Your task to perform on an android device: allow cookies in the chrome app Image 0: 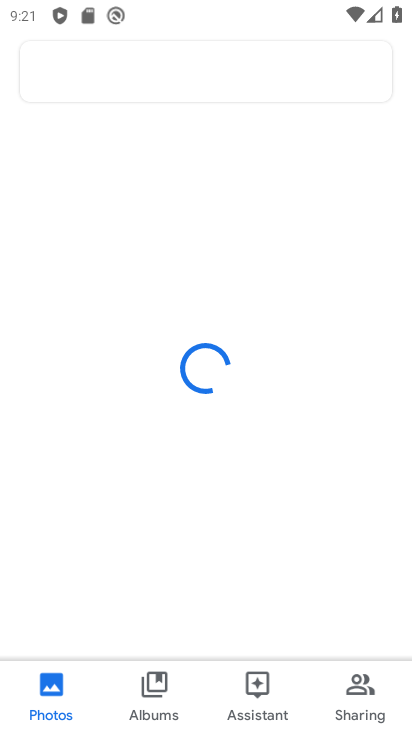
Step 0: press home button
Your task to perform on an android device: allow cookies in the chrome app Image 1: 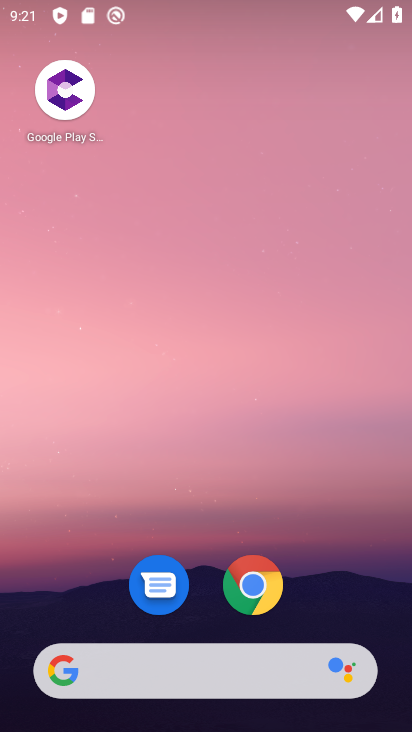
Step 1: click (409, 514)
Your task to perform on an android device: allow cookies in the chrome app Image 2: 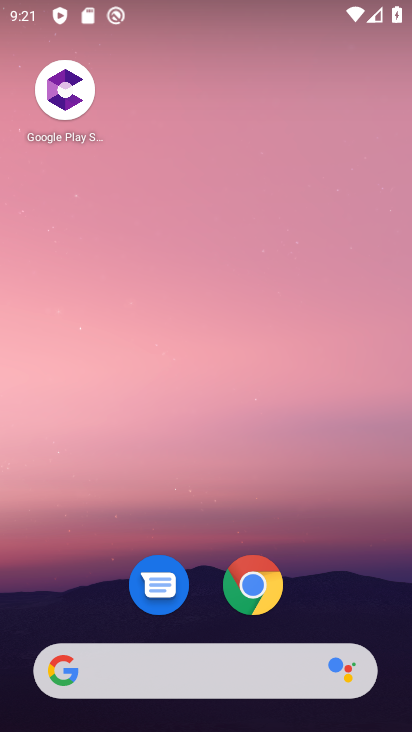
Step 2: click (260, 584)
Your task to perform on an android device: allow cookies in the chrome app Image 3: 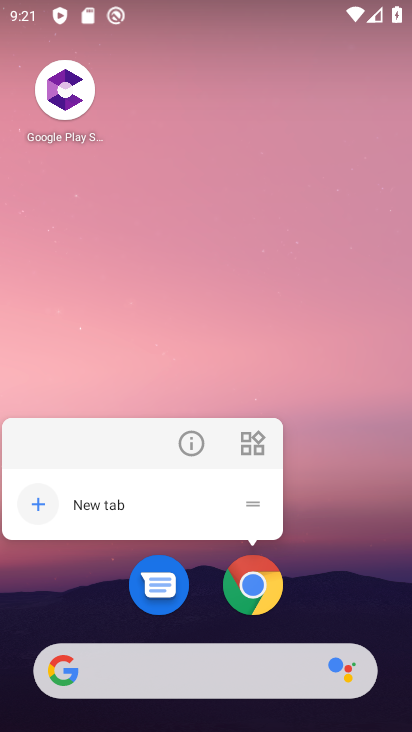
Step 3: click (258, 587)
Your task to perform on an android device: allow cookies in the chrome app Image 4: 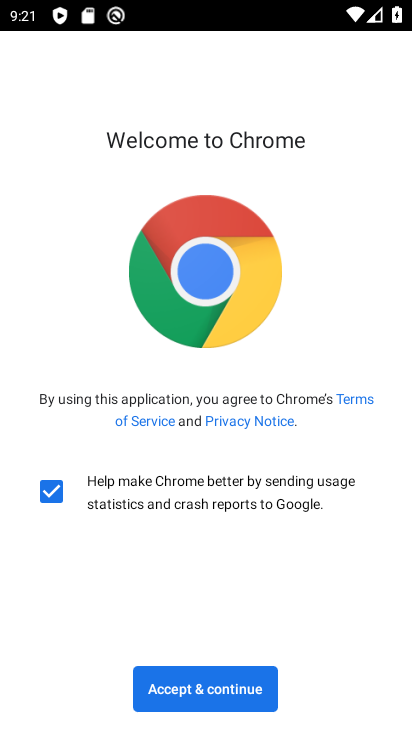
Step 4: click (185, 699)
Your task to perform on an android device: allow cookies in the chrome app Image 5: 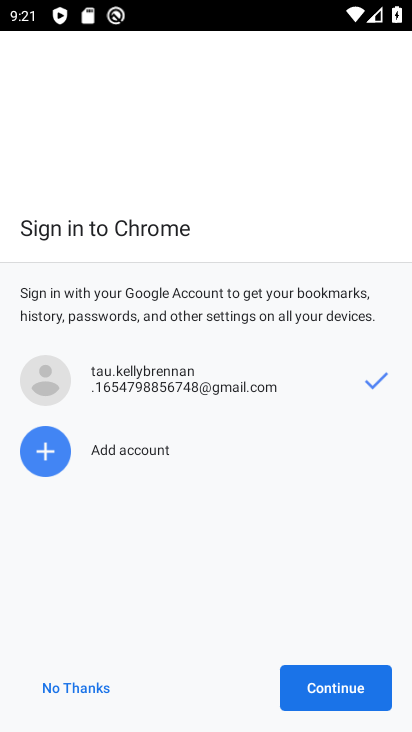
Step 5: click (347, 679)
Your task to perform on an android device: allow cookies in the chrome app Image 6: 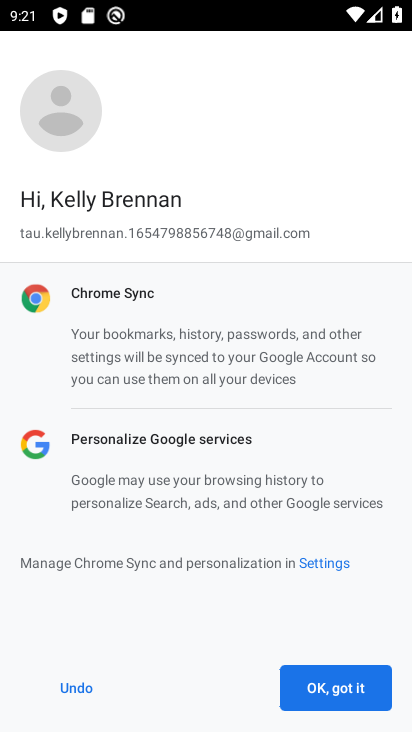
Step 6: click (344, 682)
Your task to perform on an android device: allow cookies in the chrome app Image 7: 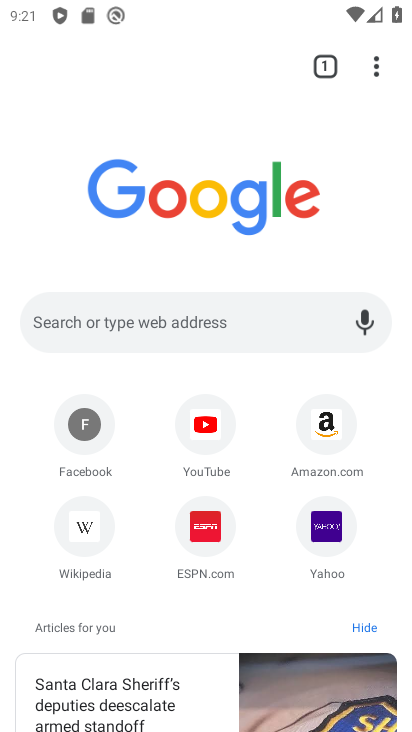
Step 7: drag from (377, 63) to (165, 556)
Your task to perform on an android device: allow cookies in the chrome app Image 8: 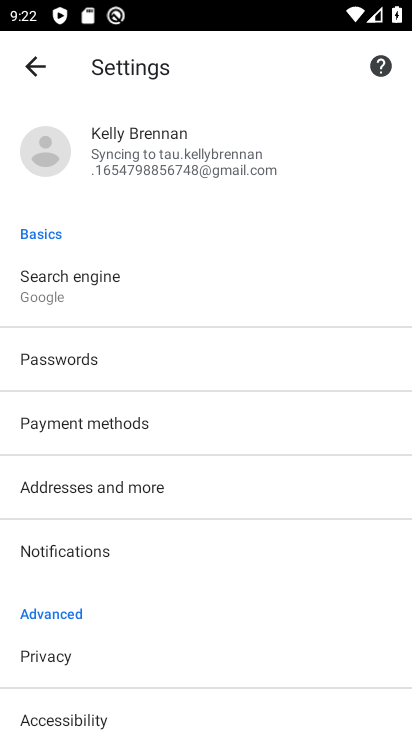
Step 8: drag from (122, 615) to (303, 214)
Your task to perform on an android device: allow cookies in the chrome app Image 9: 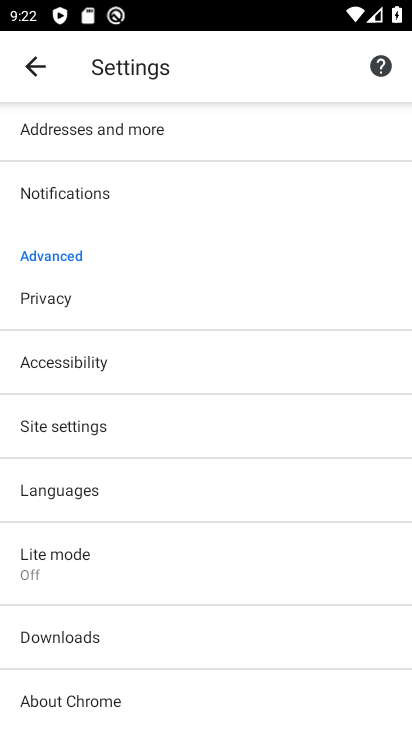
Step 9: click (77, 434)
Your task to perform on an android device: allow cookies in the chrome app Image 10: 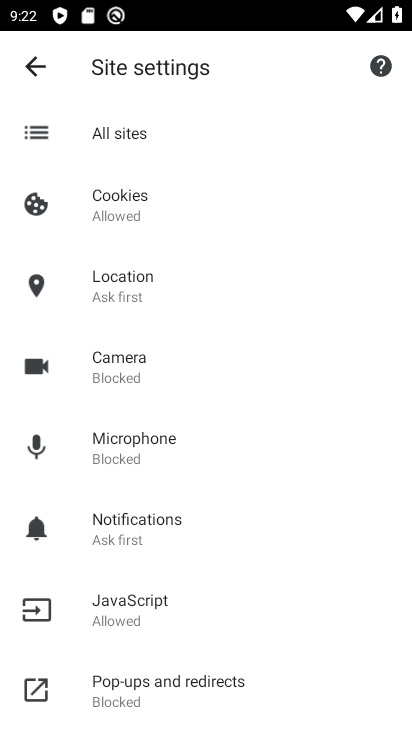
Step 10: click (135, 202)
Your task to perform on an android device: allow cookies in the chrome app Image 11: 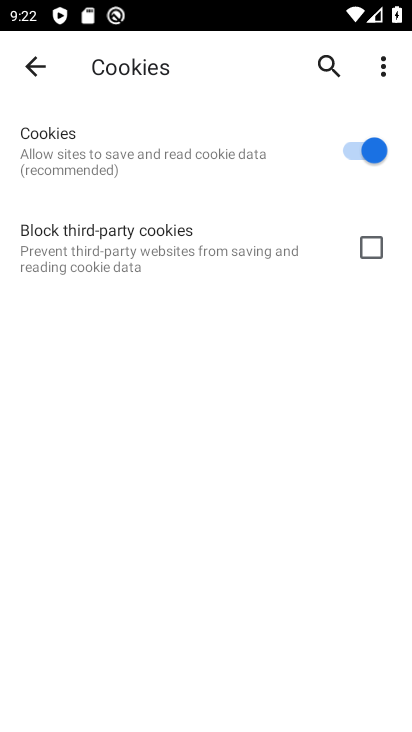
Step 11: task complete